Your task to perform on an android device: Go to accessibility settings Image 0: 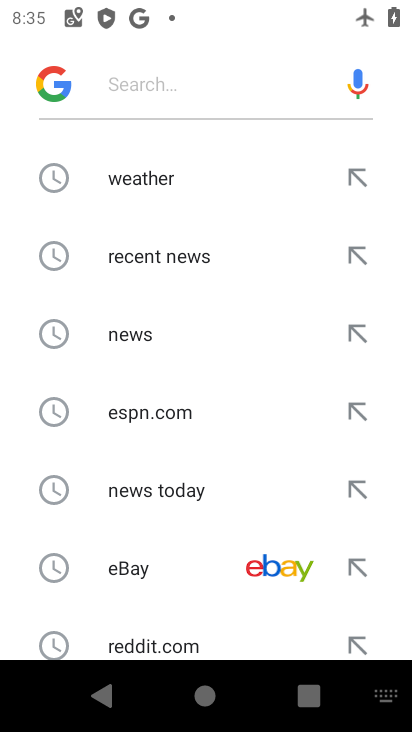
Step 0: press home button
Your task to perform on an android device: Go to accessibility settings Image 1: 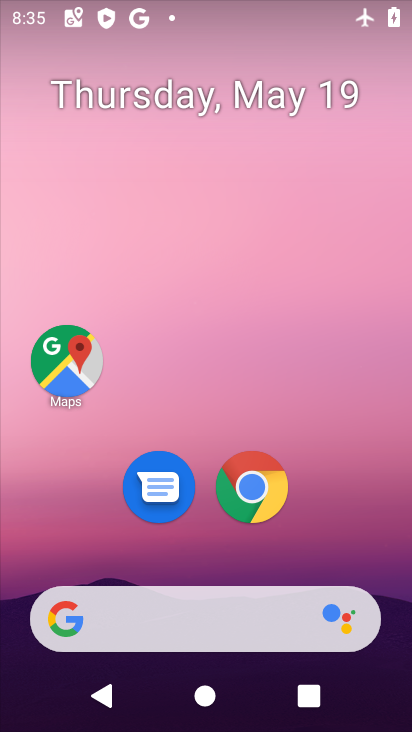
Step 1: drag from (207, 556) to (138, 3)
Your task to perform on an android device: Go to accessibility settings Image 2: 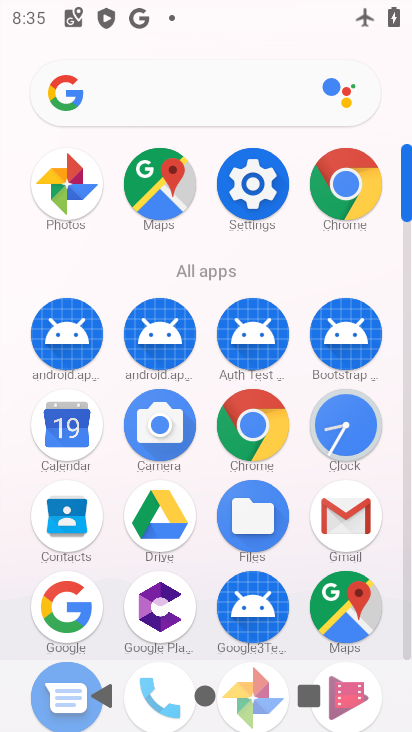
Step 2: click (243, 188)
Your task to perform on an android device: Go to accessibility settings Image 3: 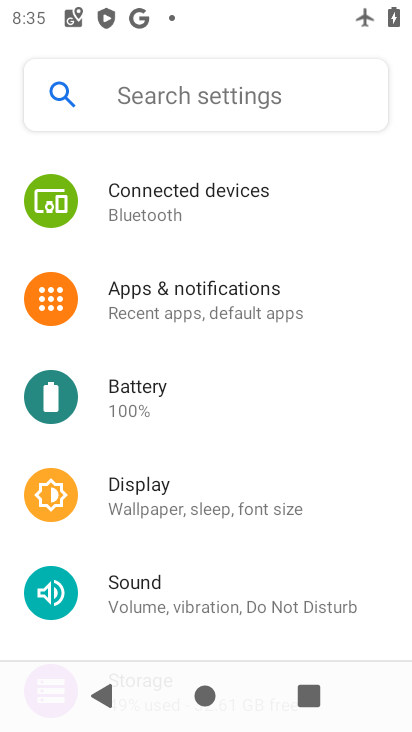
Step 3: drag from (197, 624) to (158, 143)
Your task to perform on an android device: Go to accessibility settings Image 4: 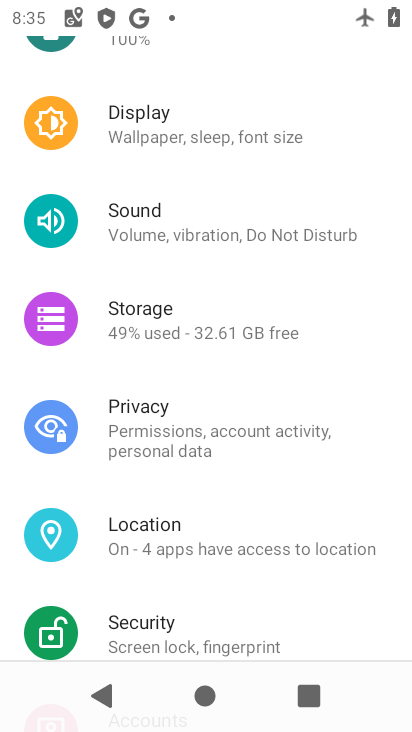
Step 4: drag from (196, 525) to (164, 21)
Your task to perform on an android device: Go to accessibility settings Image 5: 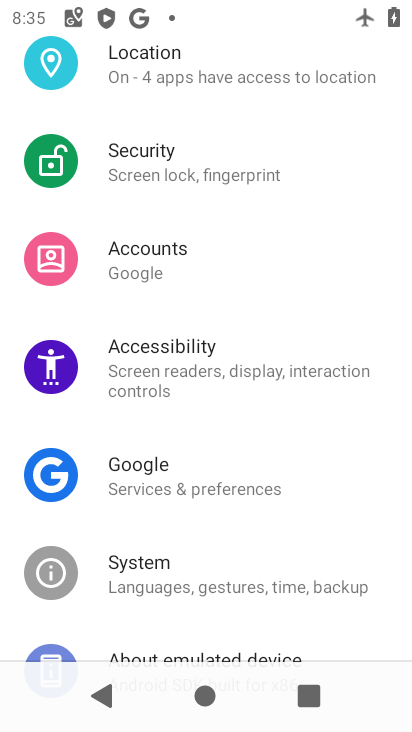
Step 5: click (154, 326)
Your task to perform on an android device: Go to accessibility settings Image 6: 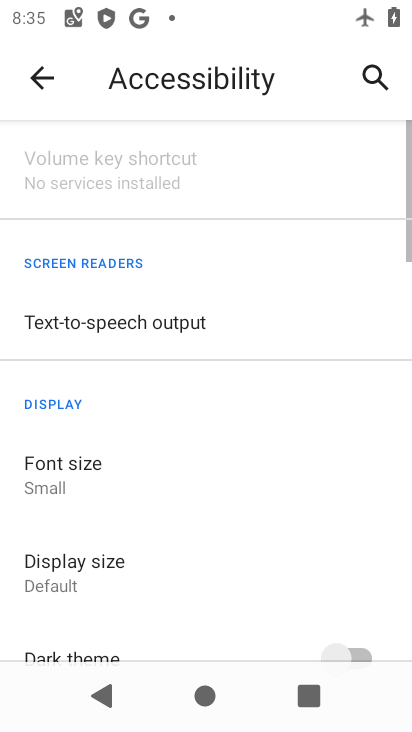
Step 6: task complete